Your task to perform on an android device: allow cookies in the chrome app Image 0: 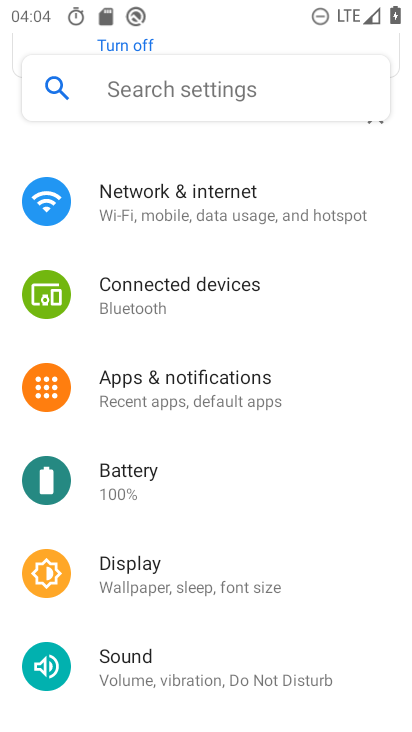
Step 0: press home button
Your task to perform on an android device: allow cookies in the chrome app Image 1: 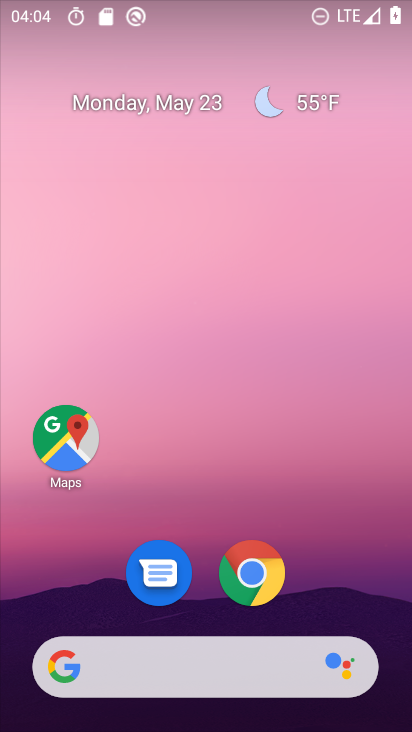
Step 1: click (250, 587)
Your task to perform on an android device: allow cookies in the chrome app Image 2: 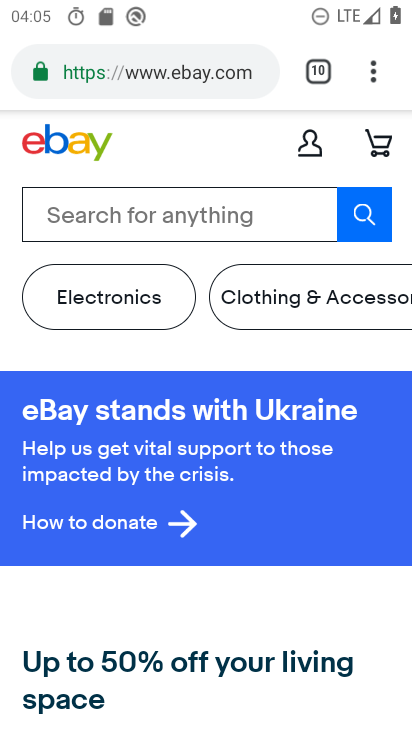
Step 2: click (380, 74)
Your task to perform on an android device: allow cookies in the chrome app Image 3: 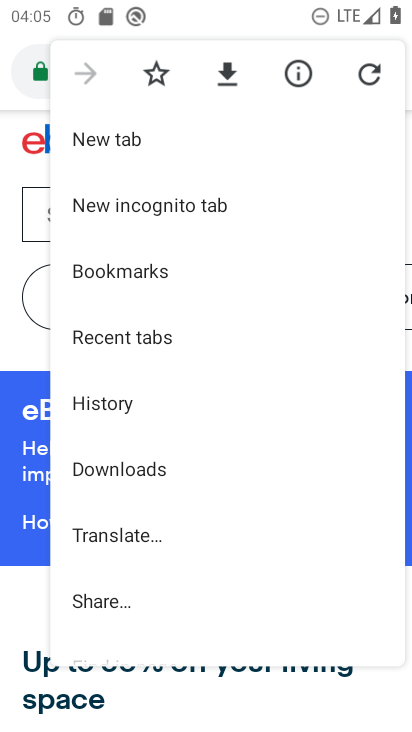
Step 3: drag from (175, 563) to (227, 128)
Your task to perform on an android device: allow cookies in the chrome app Image 4: 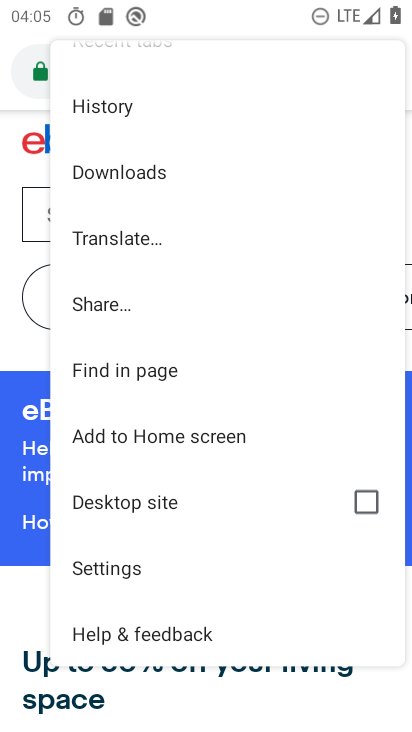
Step 4: click (131, 570)
Your task to perform on an android device: allow cookies in the chrome app Image 5: 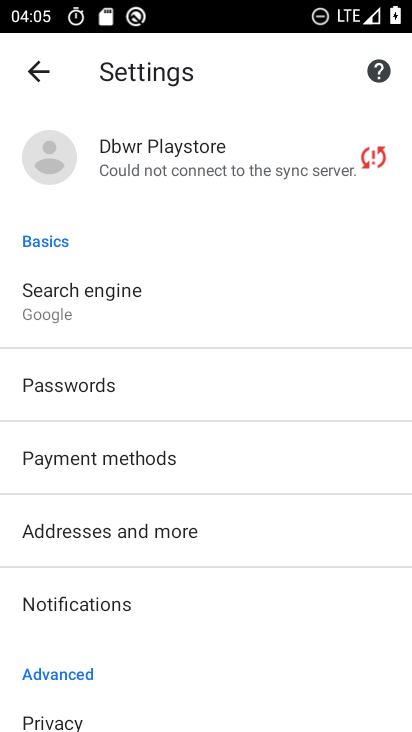
Step 5: drag from (196, 615) to (224, 333)
Your task to perform on an android device: allow cookies in the chrome app Image 6: 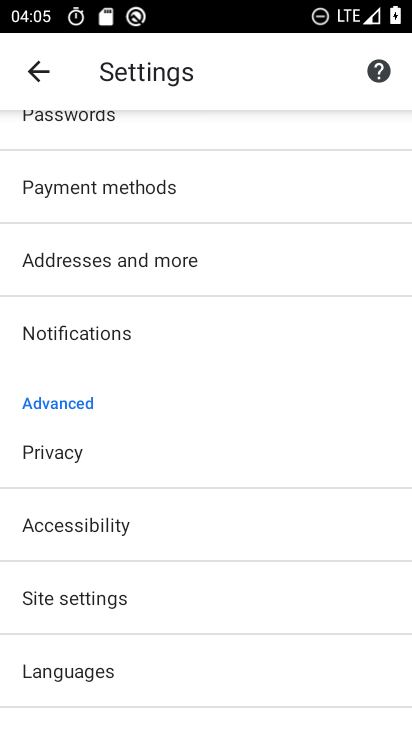
Step 6: click (86, 591)
Your task to perform on an android device: allow cookies in the chrome app Image 7: 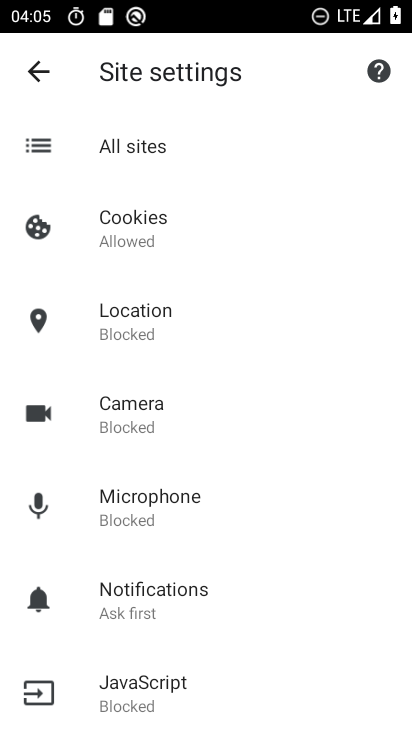
Step 7: click (149, 230)
Your task to perform on an android device: allow cookies in the chrome app Image 8: 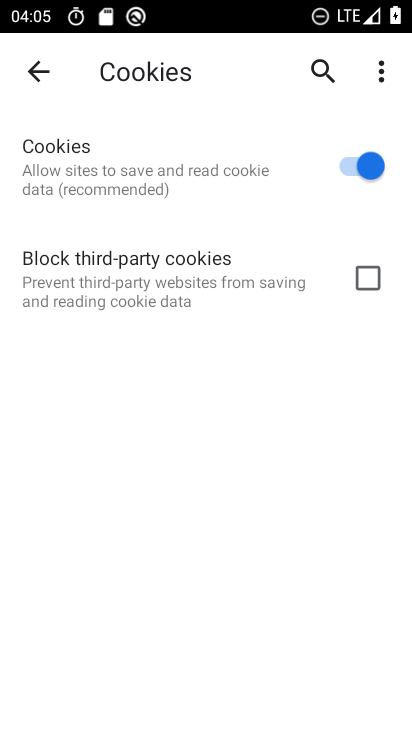
Step 8: task complete